Your task to perform on an android device: Open Google Maps Image 0: 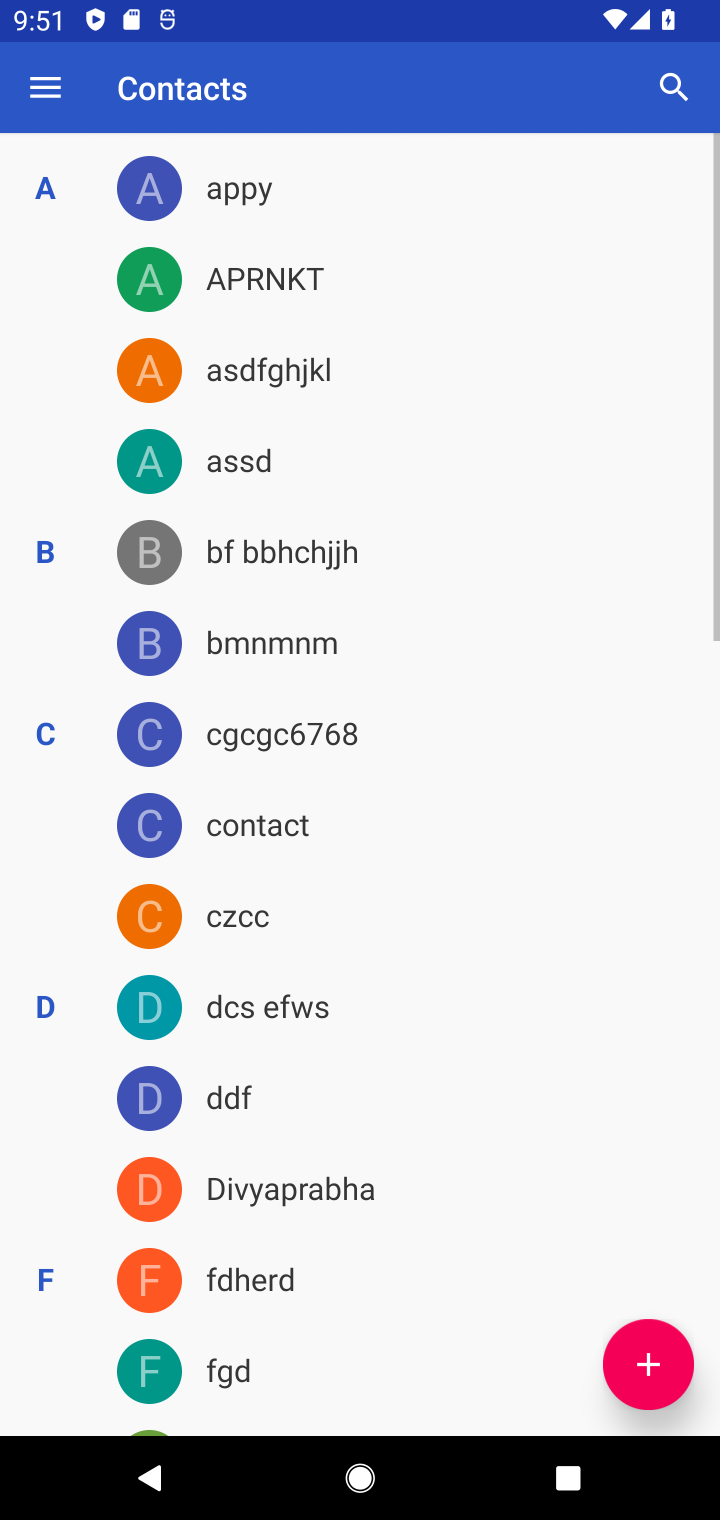
Step 0: press home button
Your task to perform on an android device: Open Google Maps Image 1: 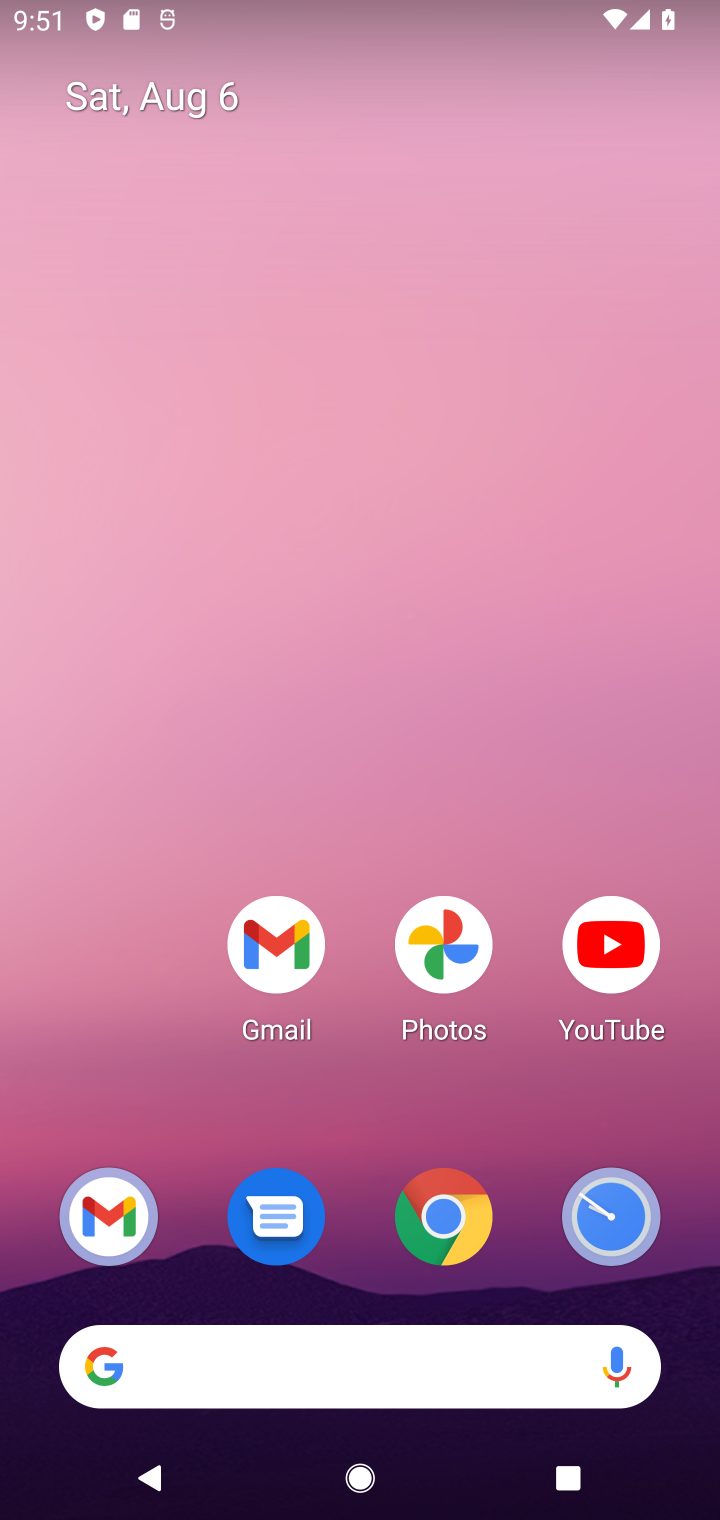
Step 1: drag from (285, 666) to (280, 448)
Your task to perform on an android device: Open Google Maps Image 2: 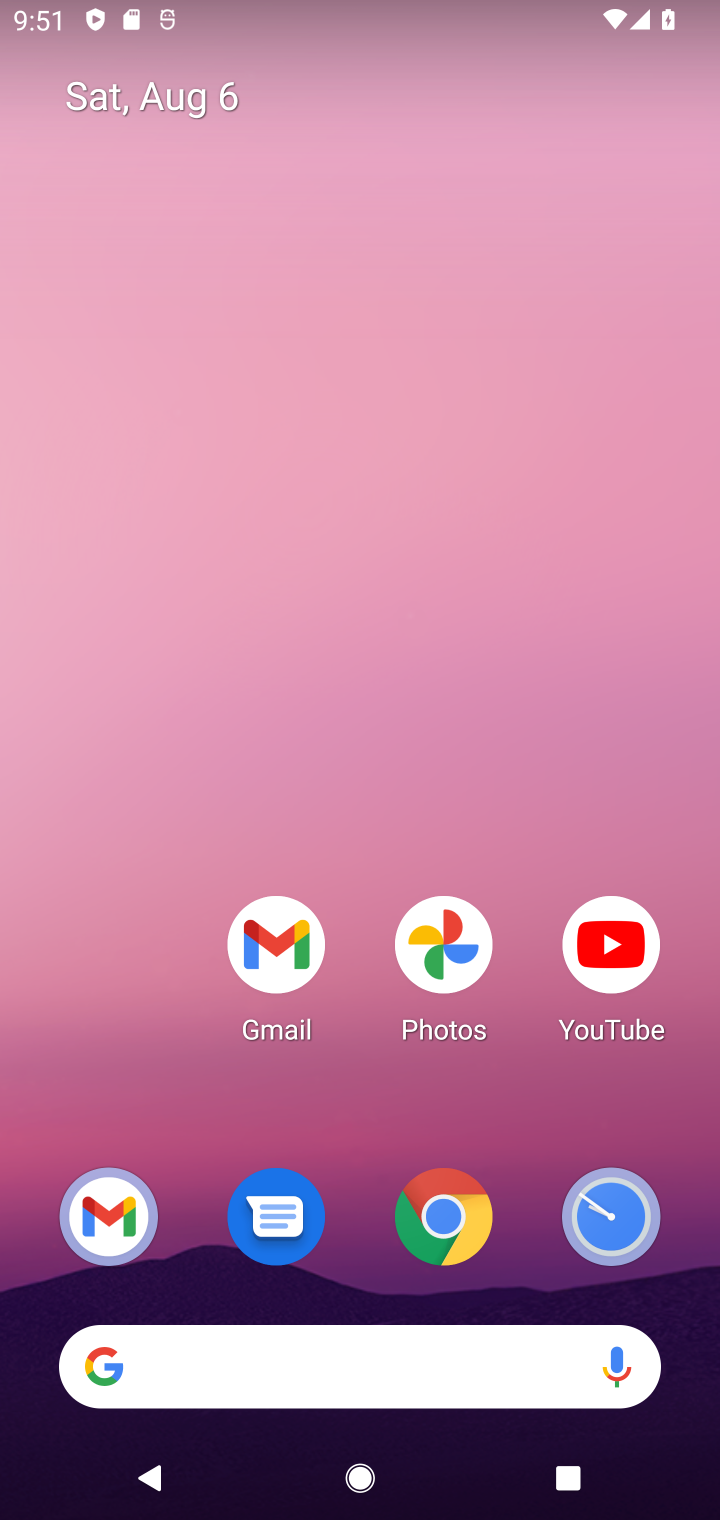
Step 2: drag from (268, 937) to (233, 200)
Your task to perform on an android device: Open Google Maps Image 3: 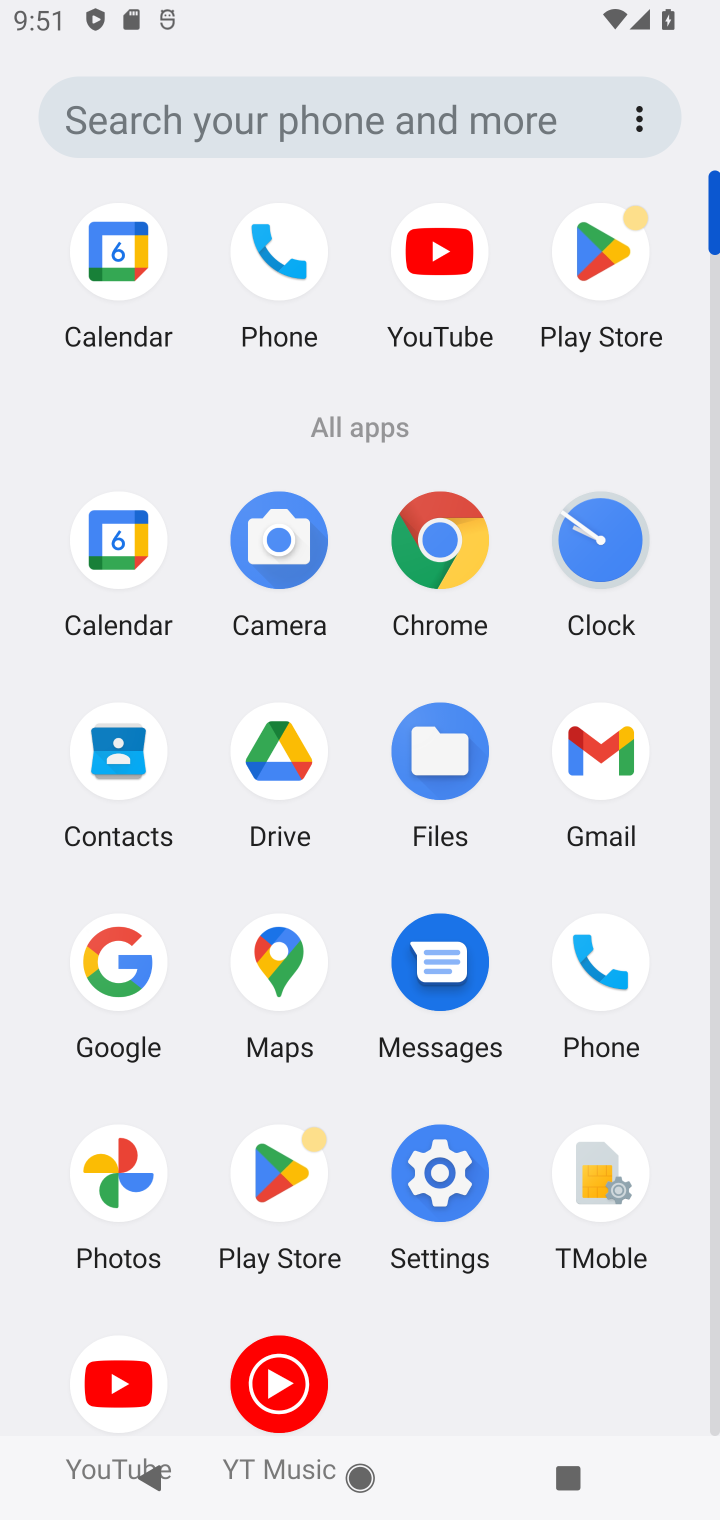
Step 3: click (287, 971)
Your task to perform on an android device: Open Google Maps Image 4: 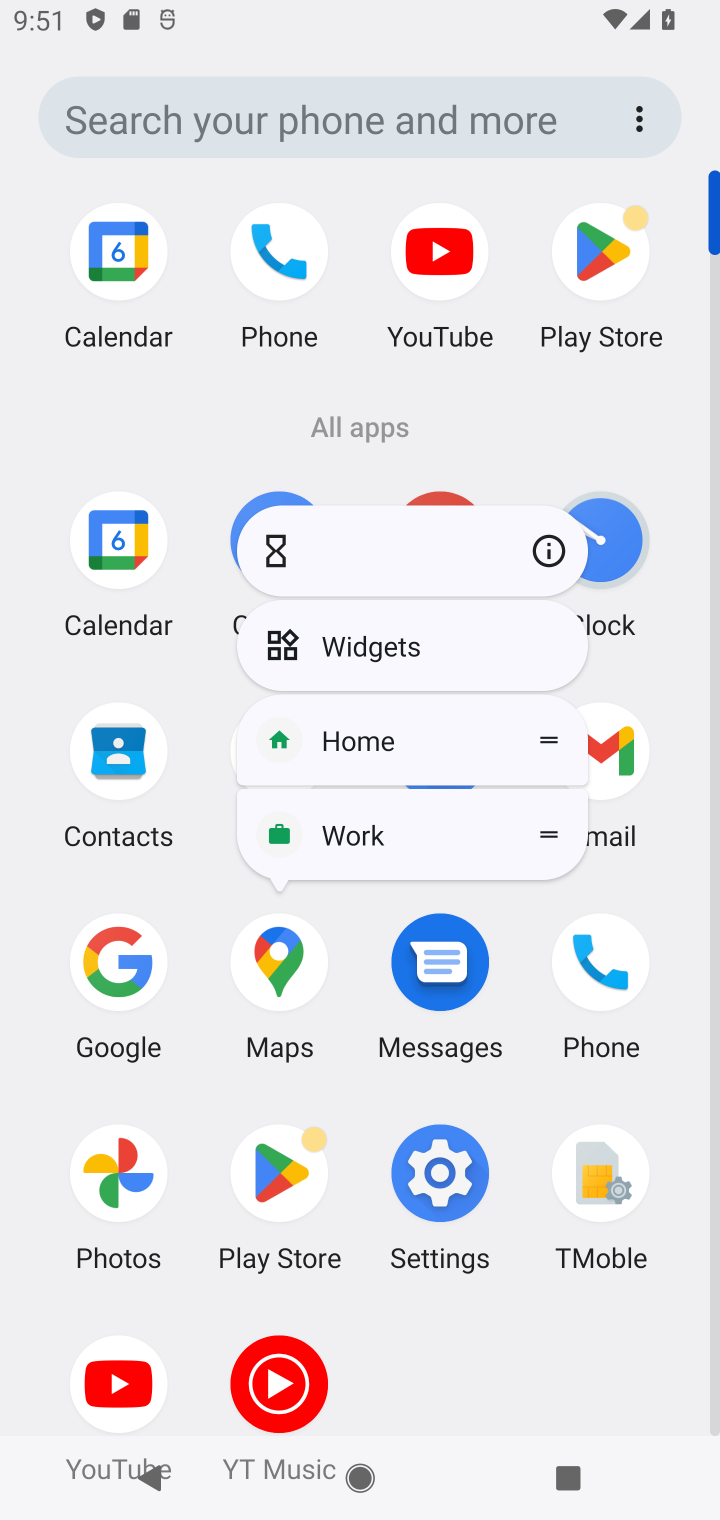
Step 4: click (287, 971)
Your task to perform on an android device: Open Google Maps Image 5: 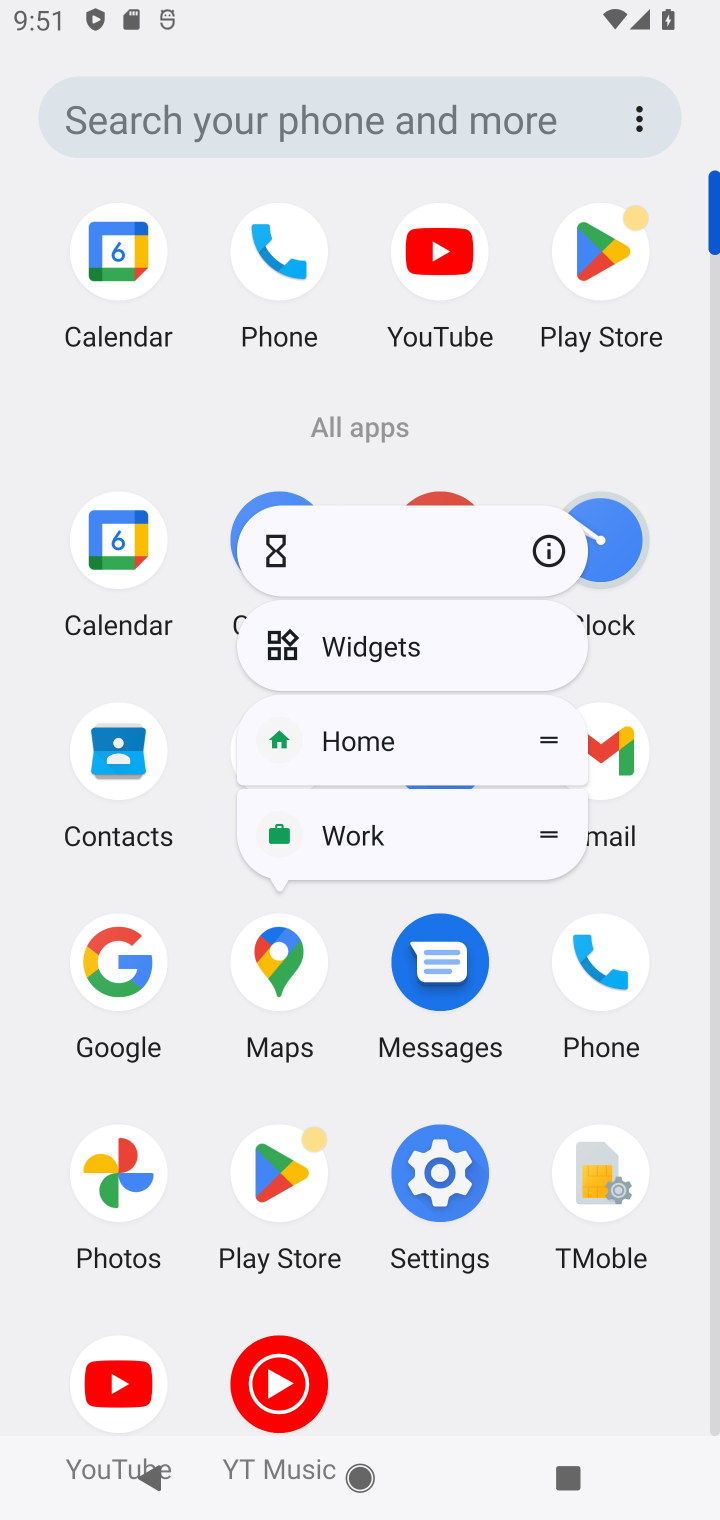
Step 5: click (289, 966)
Your task to perform on an android device: Open Google Maps Image 6: 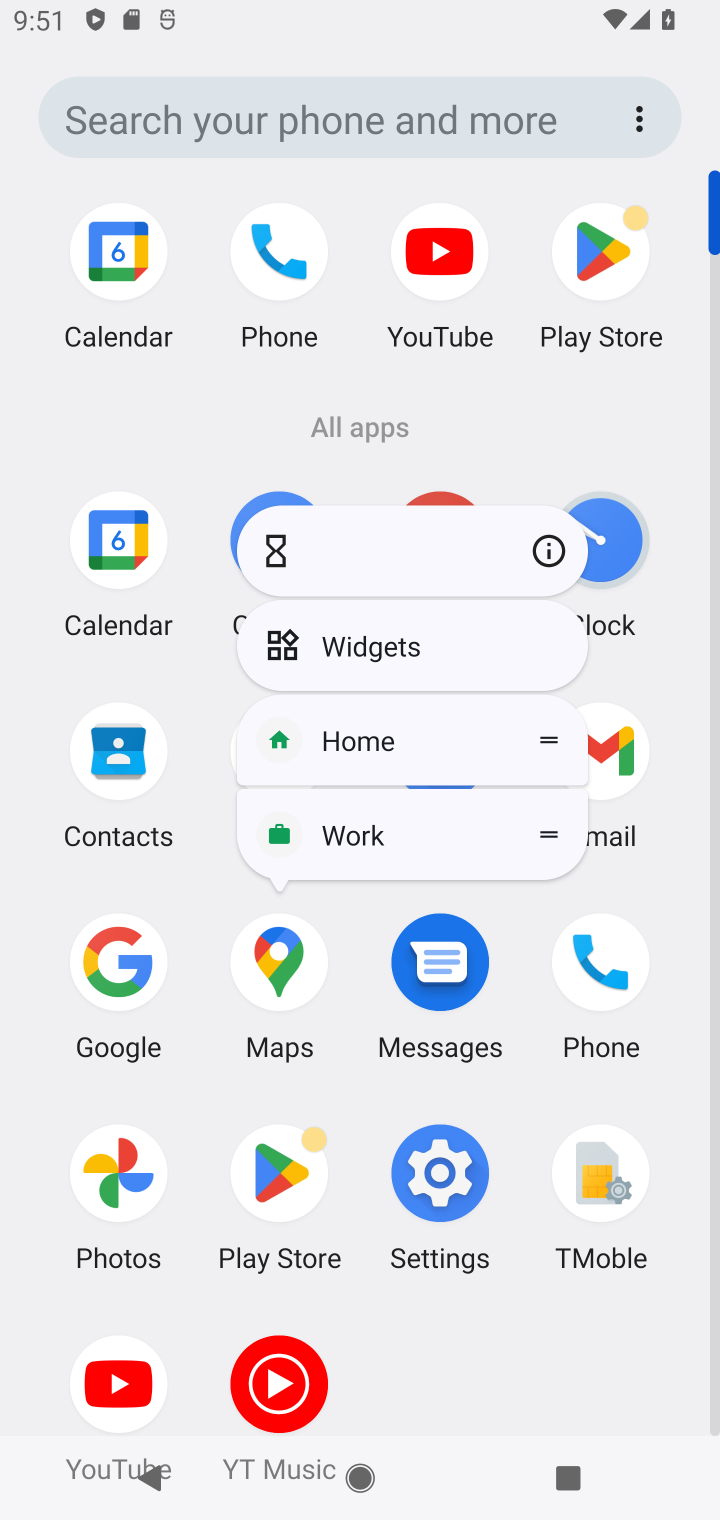
Step 6: click (289, 951)
Your task to perform on an android device: Open Google Maps Image 7: 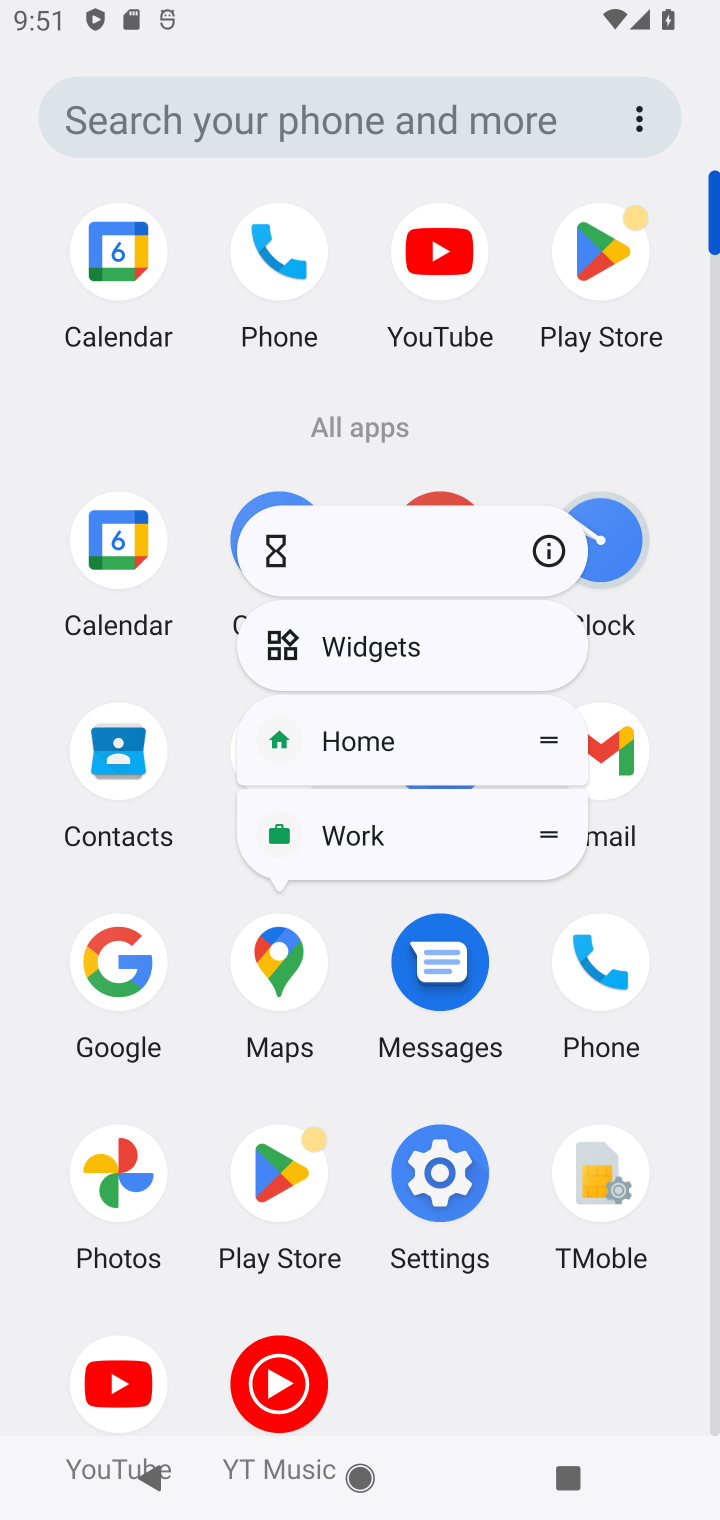
Step 7: click (278, 974)
Your task to perform on an android device: Open Google Maps Image 8: 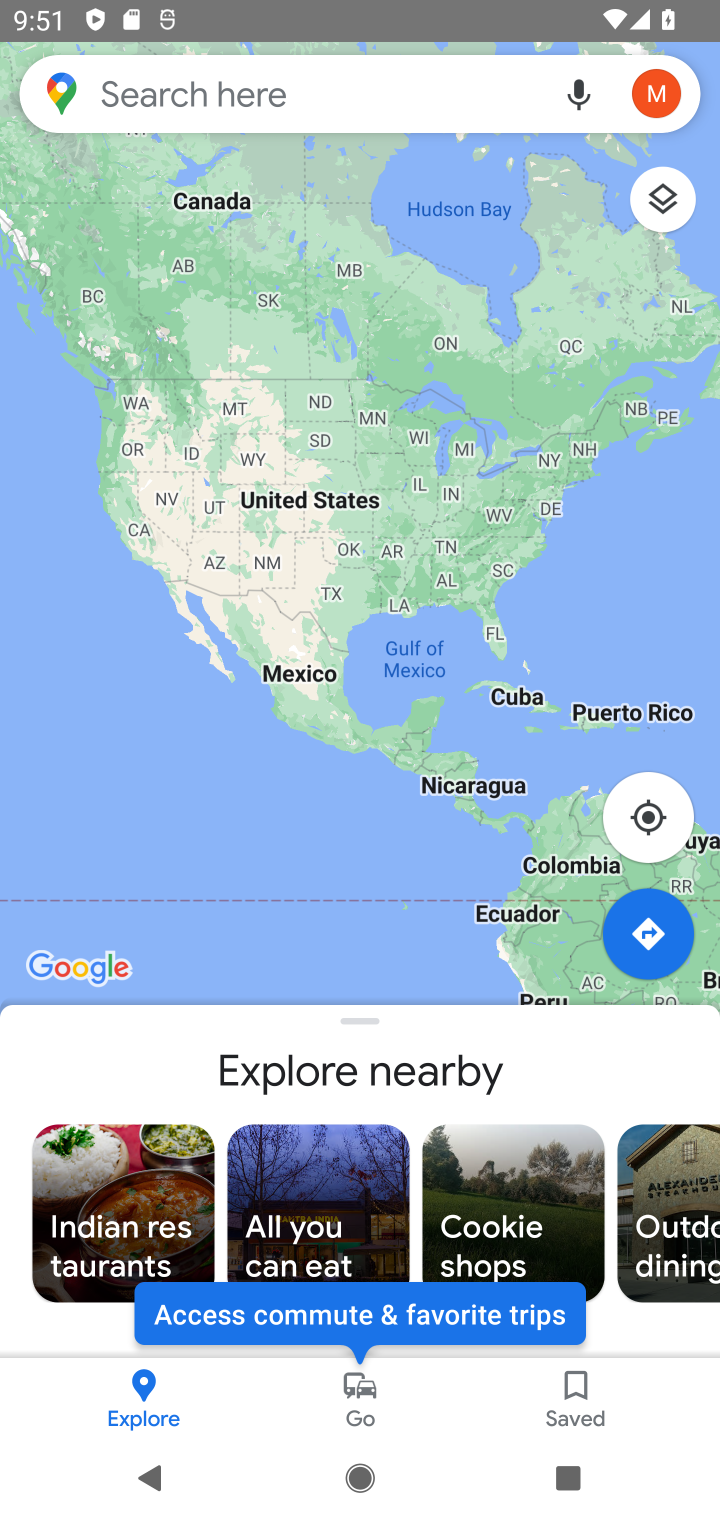
Step 8: task complete